Your task to perform on an android device: Open Google Maps Image 0: 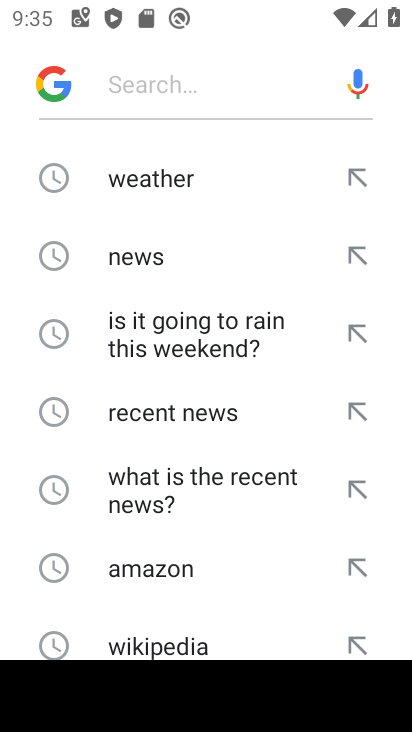
Step 0: press home button
Your task to perform on an android device: Open Google Maps Image 1: 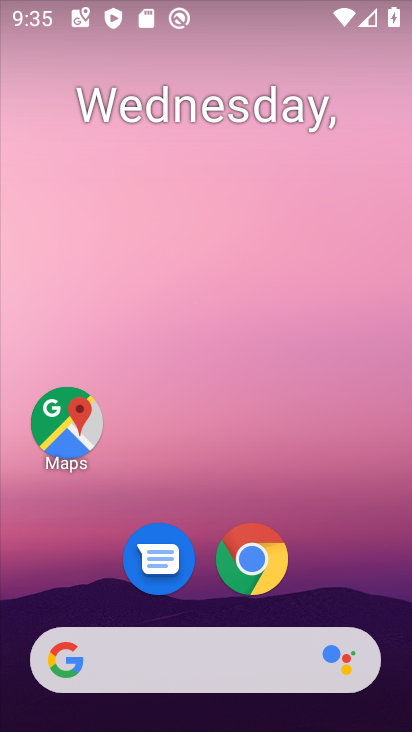
Step 1: click (59, 402)
Your task to perform on an android device: Open Google Maps Image 2: 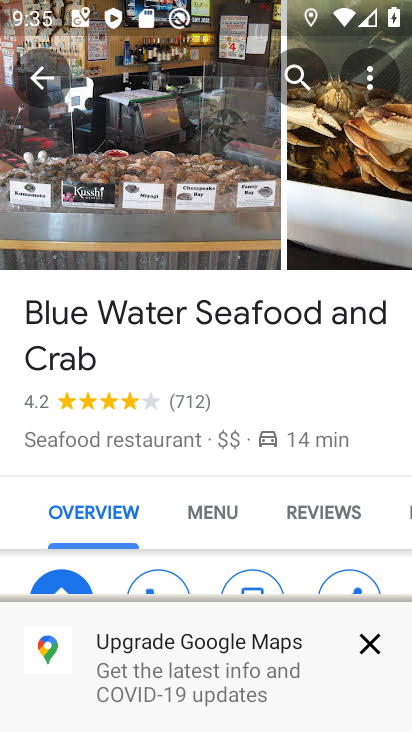
Step 2: click (368, 638)
Your task to perform on an android device: Open Google Maps Image 3: 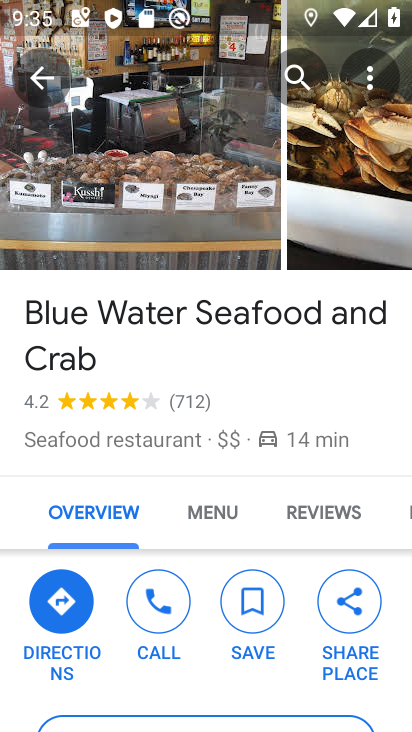
Step 3: task complete